Your task to perform on an android device: Toggle the flashlight Image 0: 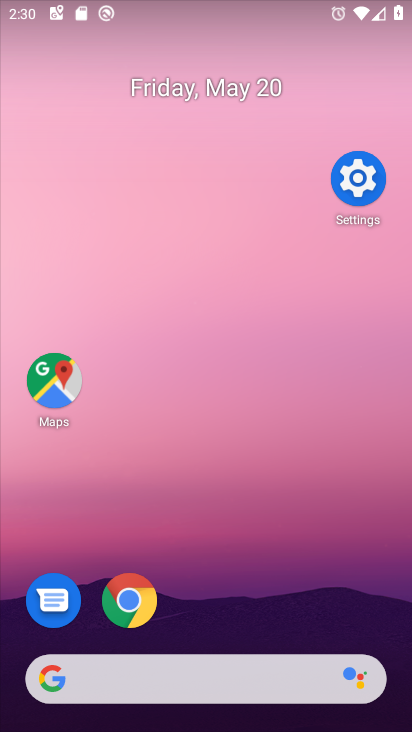
Step 0: drag from (262, 567) to (319, 63)
Your task to perform on an android device: Toggle the flashlight Image 1: 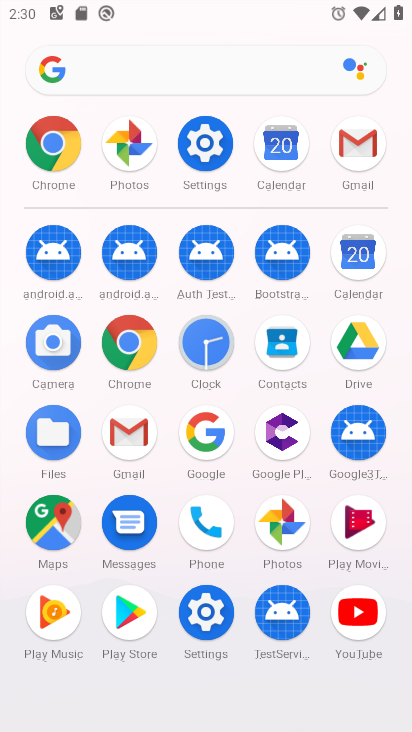
Step 1: click (204, 175)
Your task to perform on an android device: Toggle the flashlight Image 2: 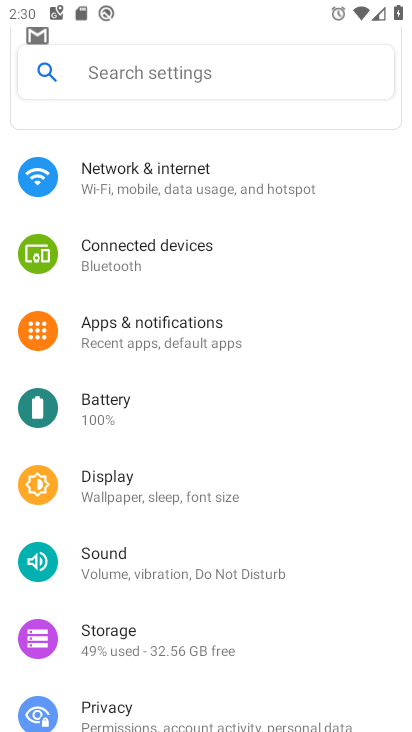
Step 2: click (207, 71)
Your task to perform on an android device: Toggle the flashlight Image 3: 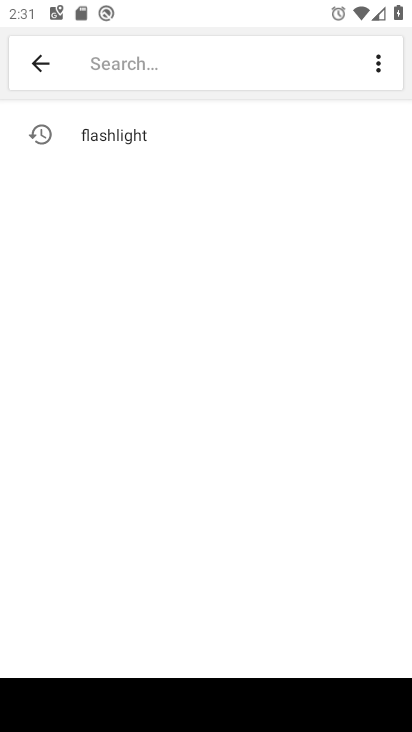
Step 3: type "flashlight"
Your task to perform on an android device: Toggle the flashlight Image 4: 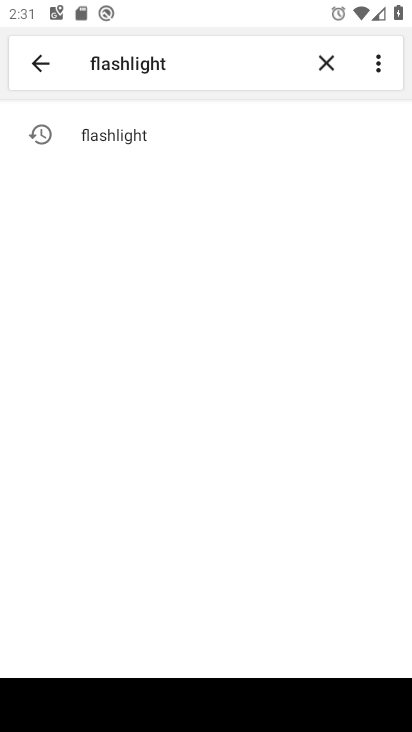
Step 4: click (107, 142)
Your task to perform on an android device: Toggle the flashlight Image 5: 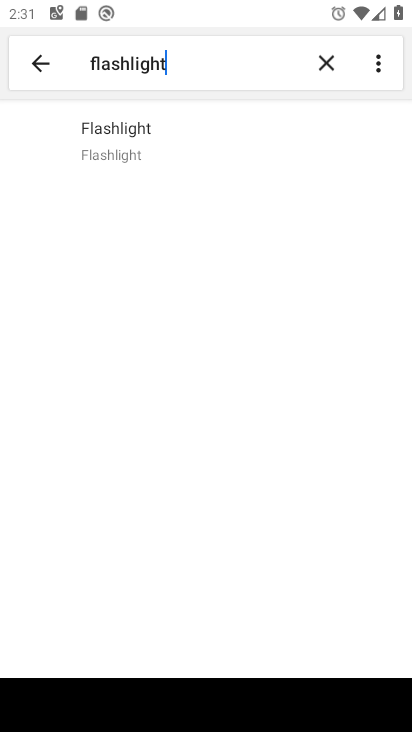
Step 5: click (106, 143)
Your task to perform on an android device: Toggle the flashlight Image 6: 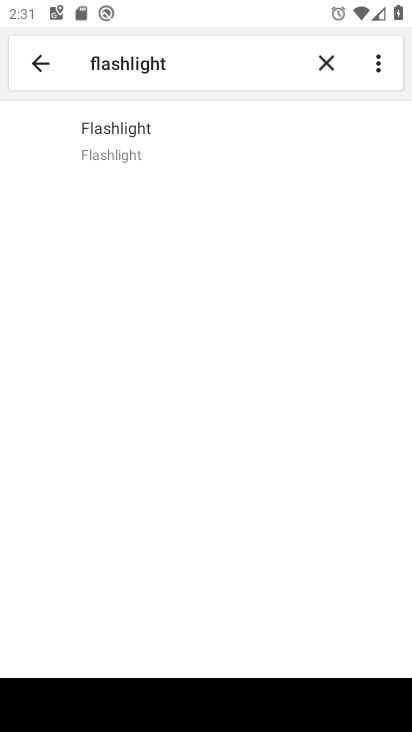
Step 6: task complete